Your task to perform on an android device: open app "Expedia: Hotels, Flights & Car" Image 0: 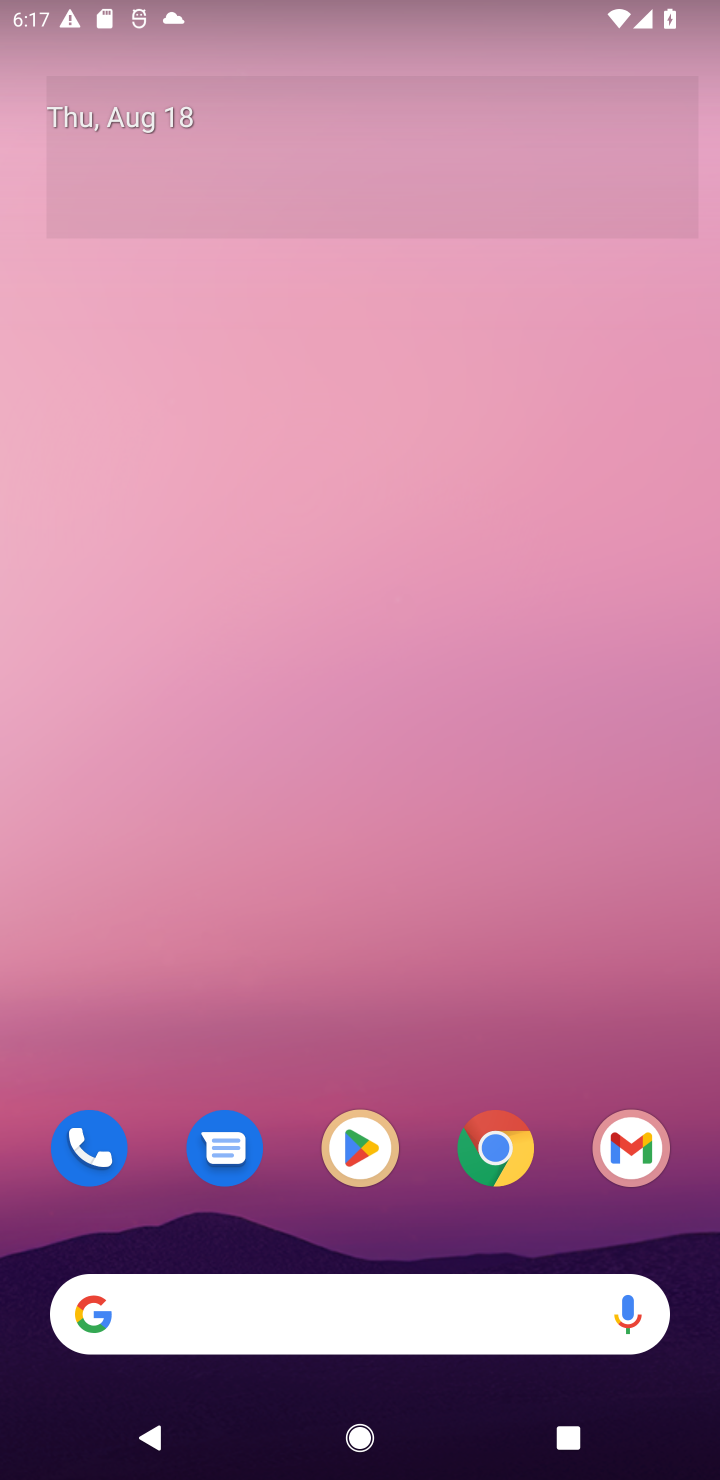
Step 0: drag from (438, 1022) to (414, 97)
Your task to perform on an android device: open app "Expedia: Hotels, Flights & Car" Image 1: 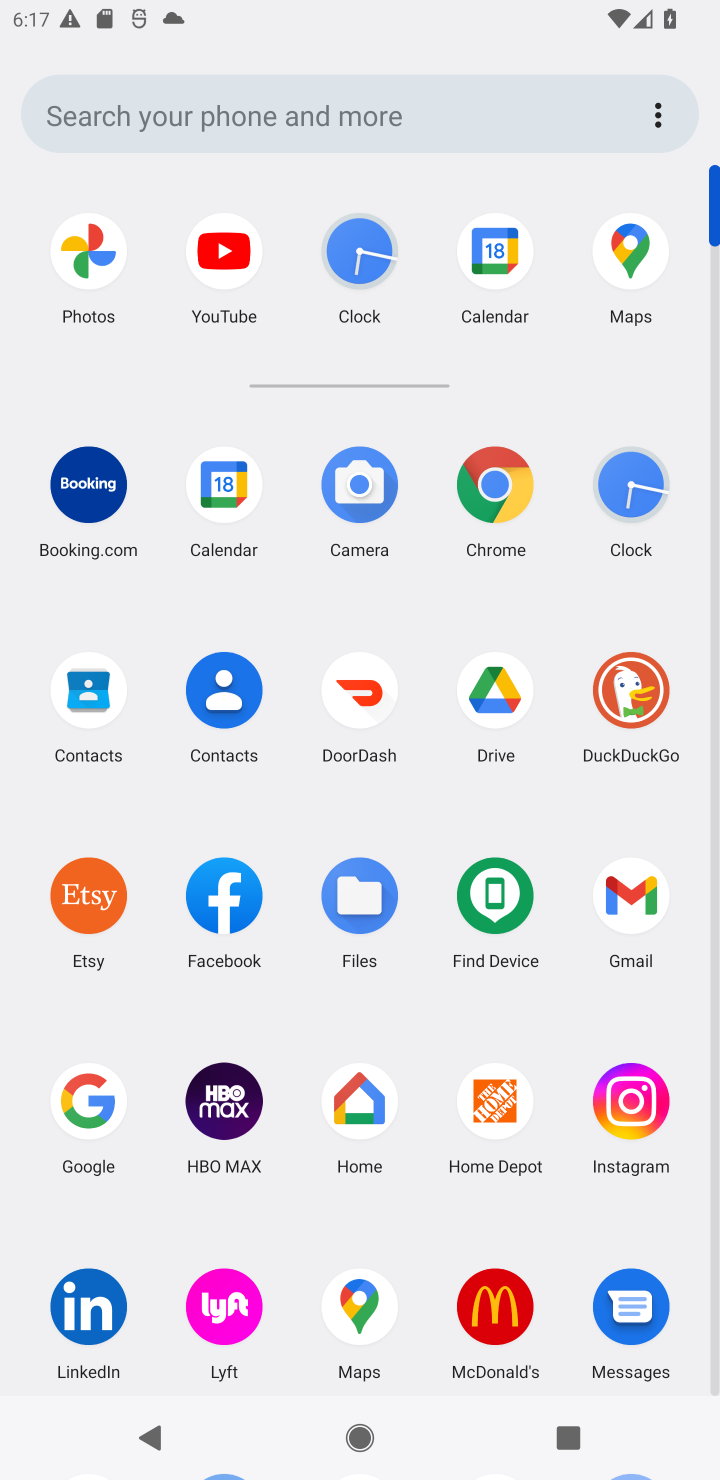
Step 1: drag from (295, 1280) to (348, 410)
Your task to perform on an android device: open app "Expedia: Hotels, Flights & Car" Image 2: 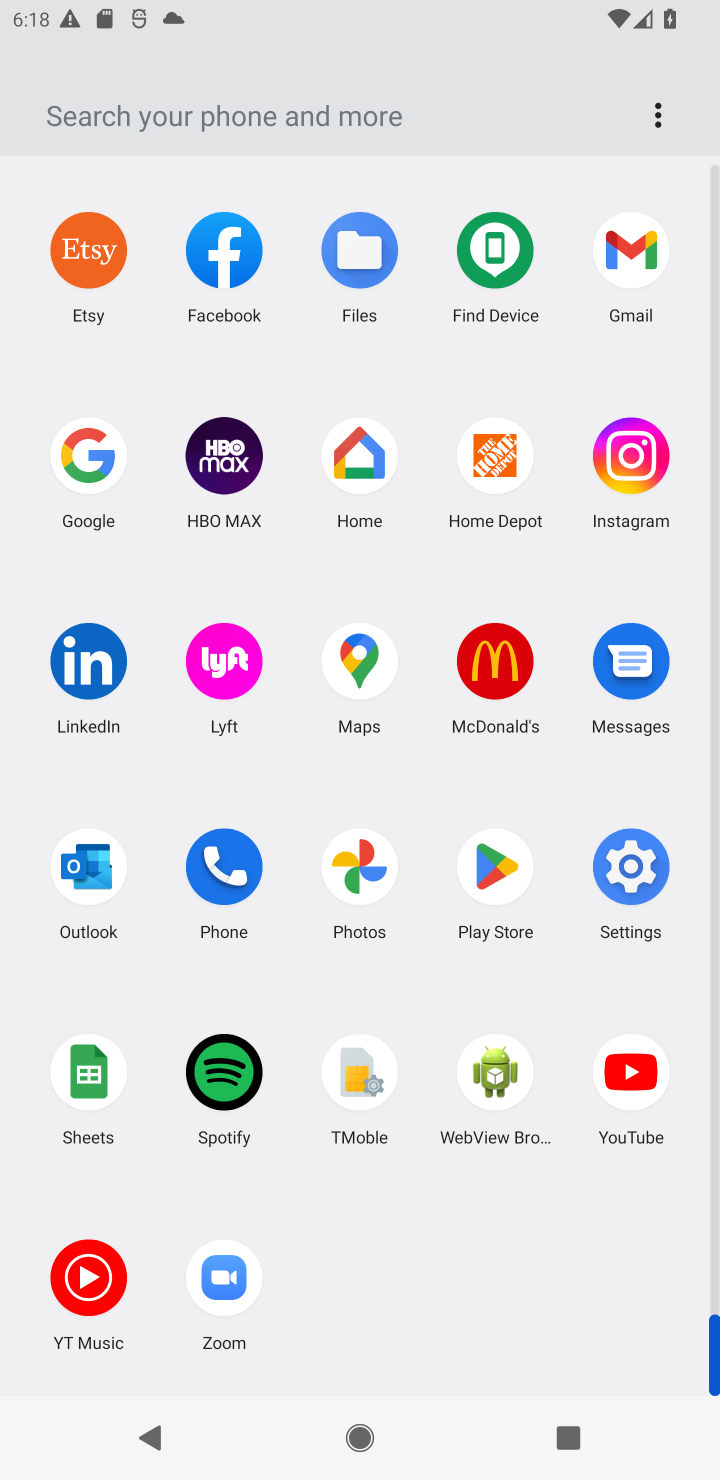
Step 2: click (504, 878)
Your task to perform on an android device: open app "Expedia: Hotels, Flights & Car" Image 3: 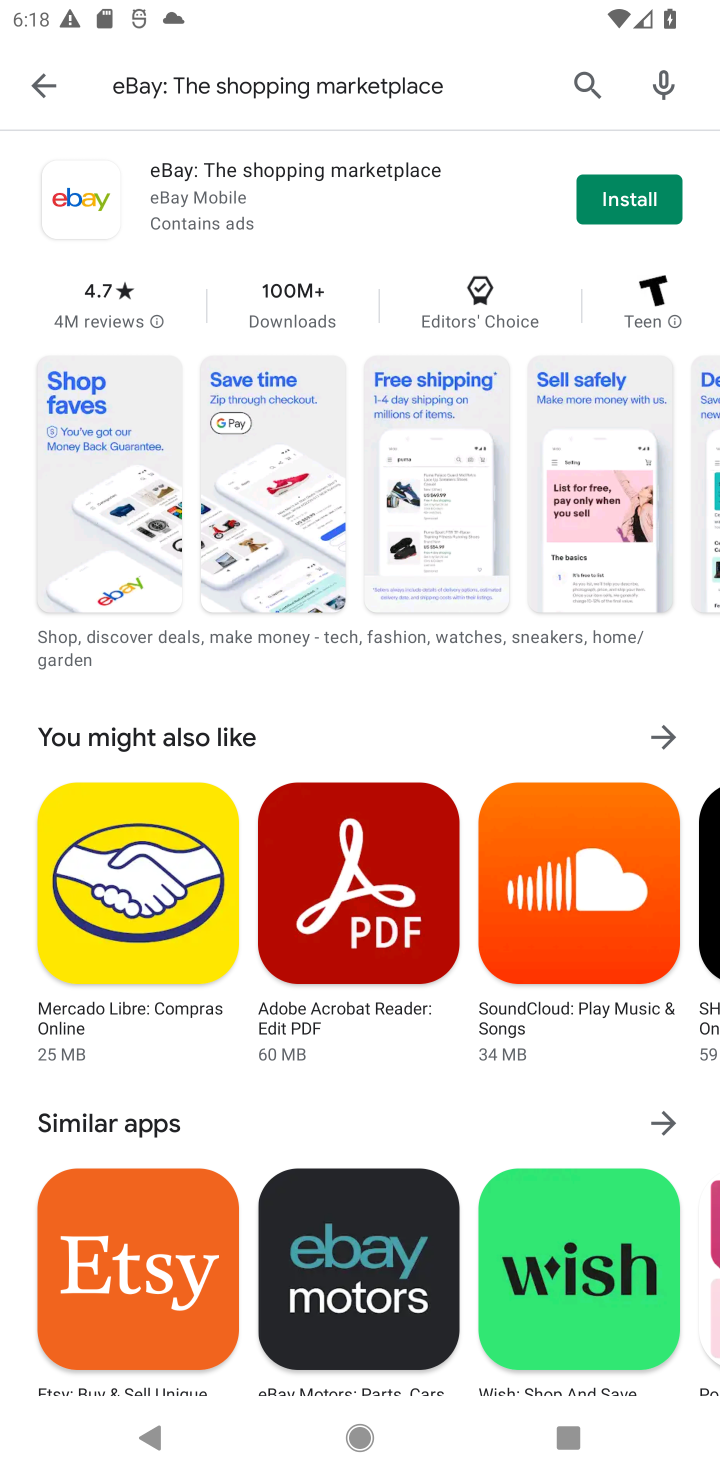
Step 3: press back button
Your task to perform on an android device: open app "Expedia: Hotels, Flights & Car" Image 4: 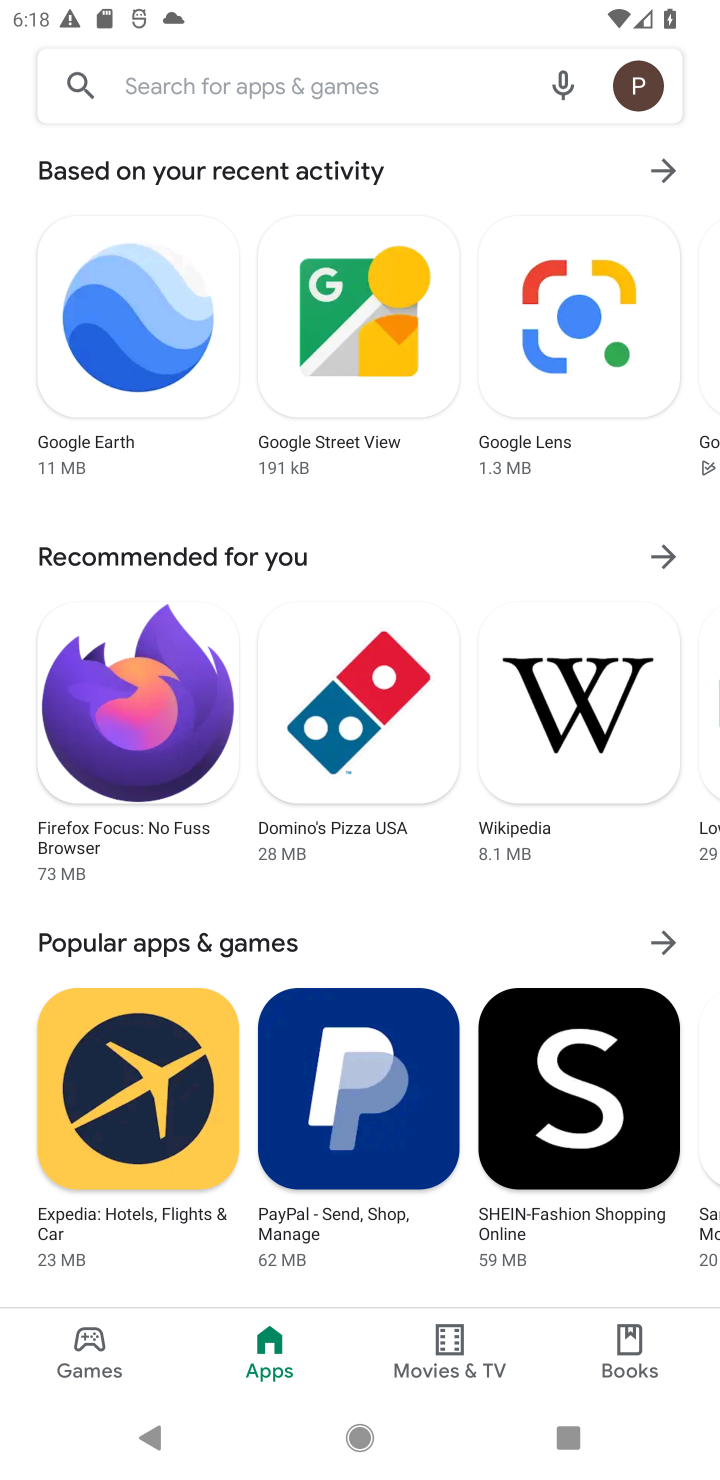
Step 4: click (248, 83)
Your task to perform on an android device: open app "Expedia: Hotels, Flights & Car" Image 5: 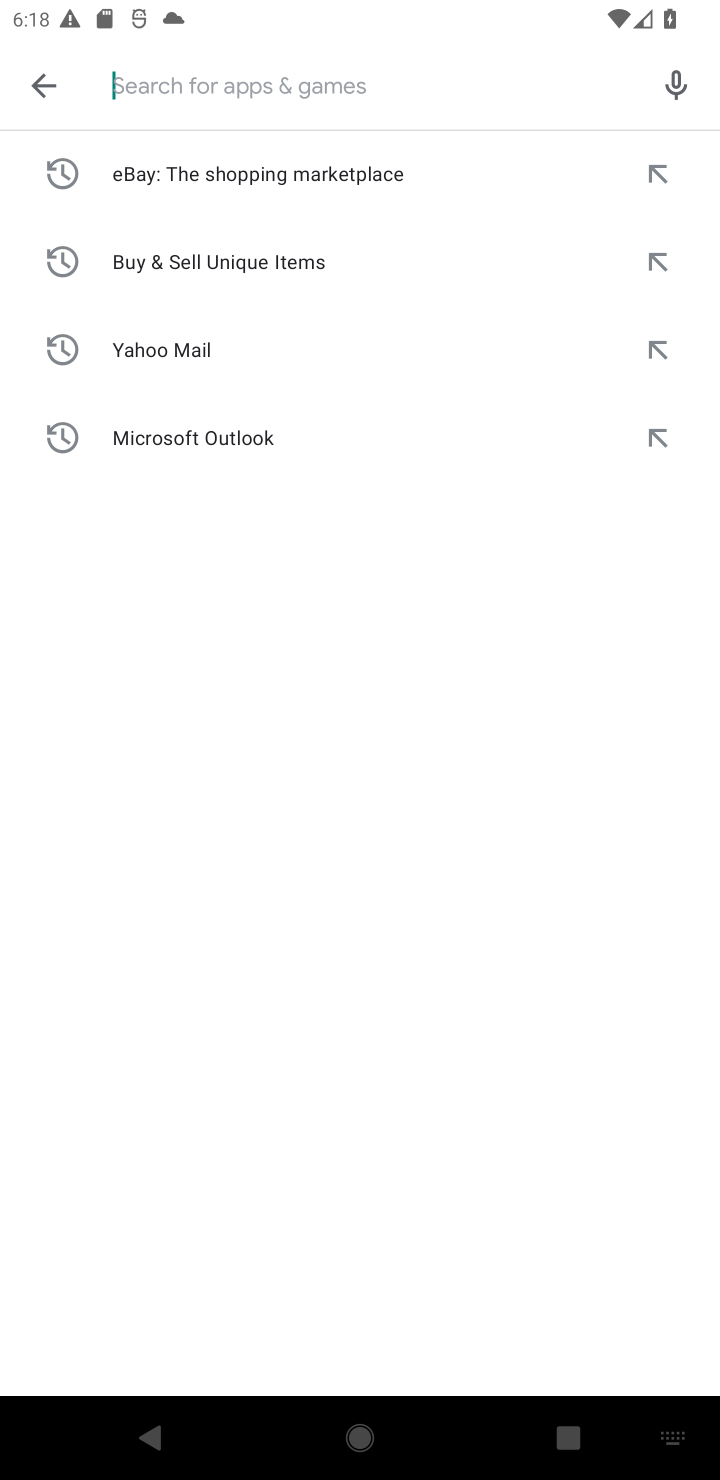
Step 5: type "Expedia: Hotels, Flights & Car"
Your task to perform on an android device: open app "Expedia: Hotels, Flights & Car" Image 6: 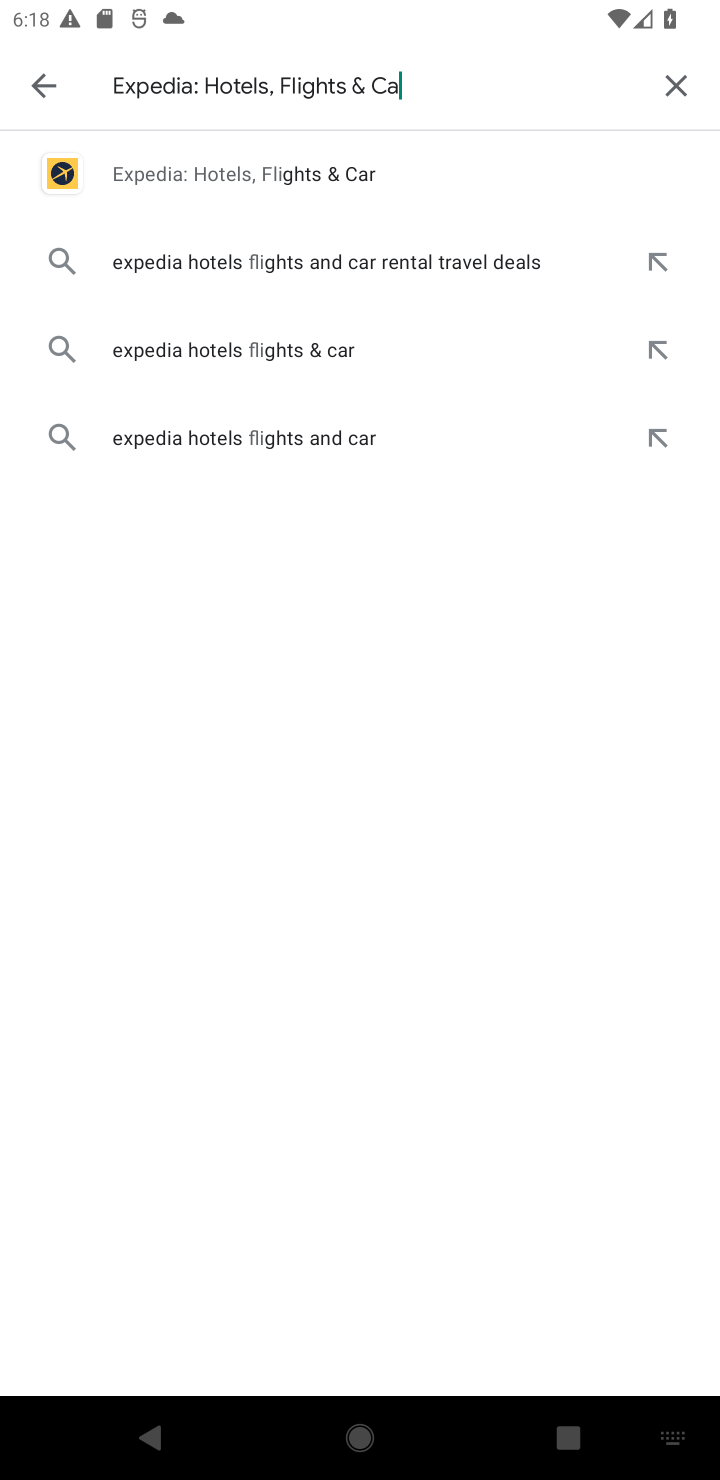
Step 6: press enter
Your task to perform on an android device: open app "Expedia: Hotels, Flights & Car" Image 7: 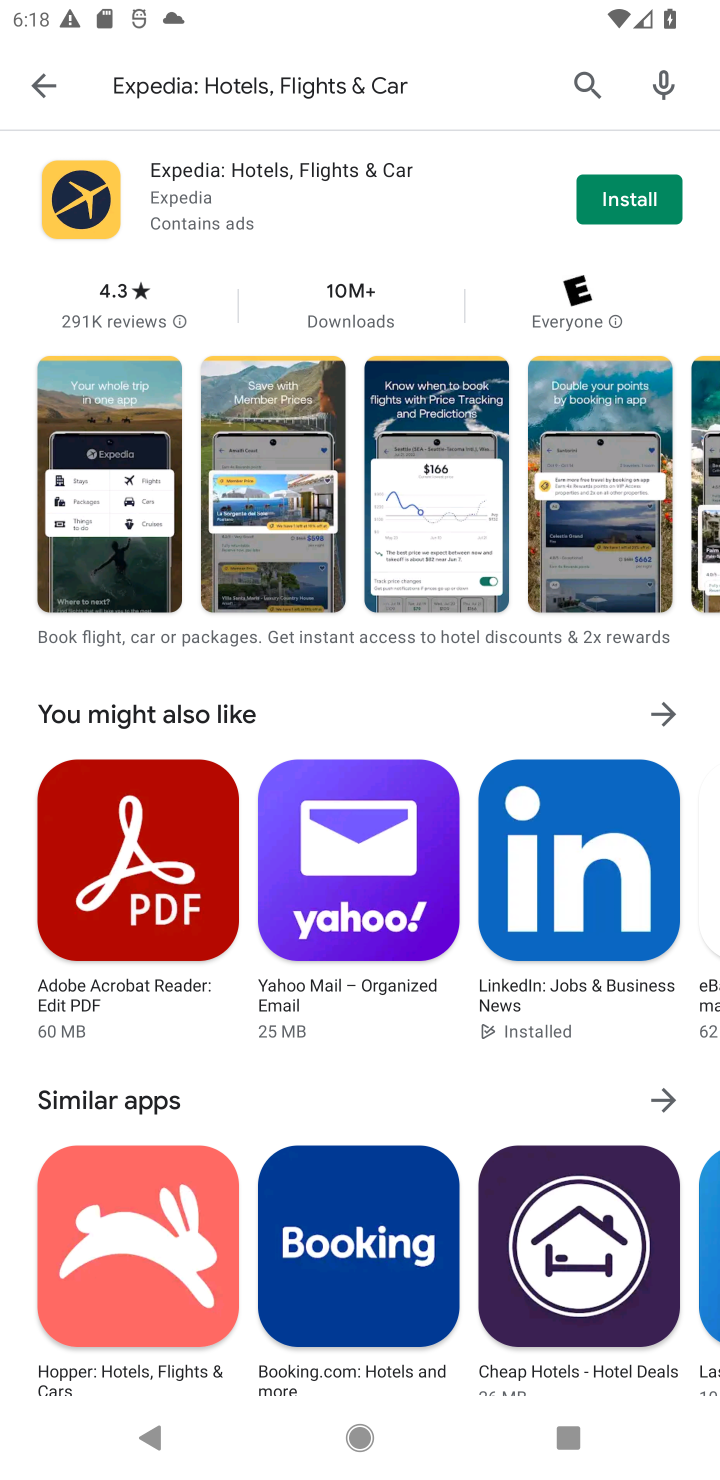
Step 7: task complete